Your task to perform on an android device: Open Chrome and go to settings Image 0: 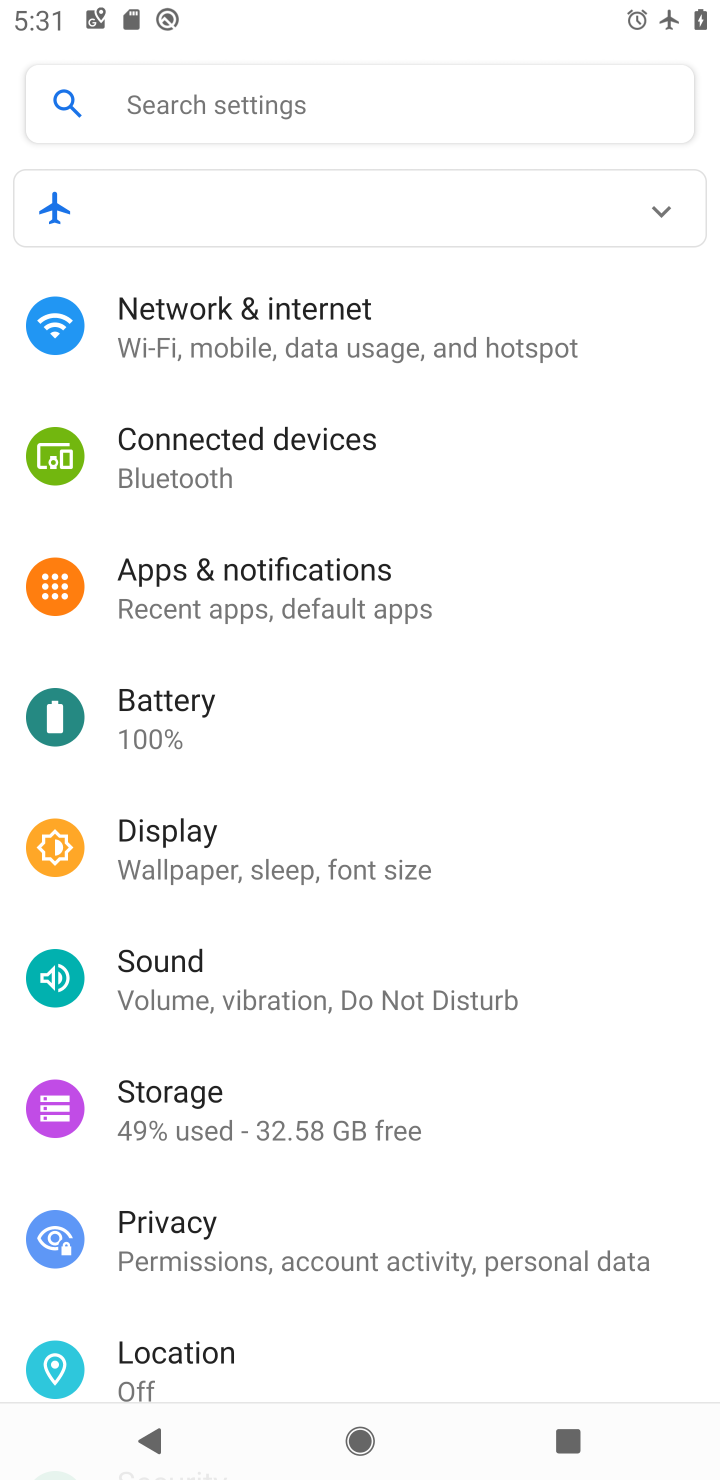
Step 0: press home button
Your task to perform on an android device: Open Chrome and go to settings Image 1: 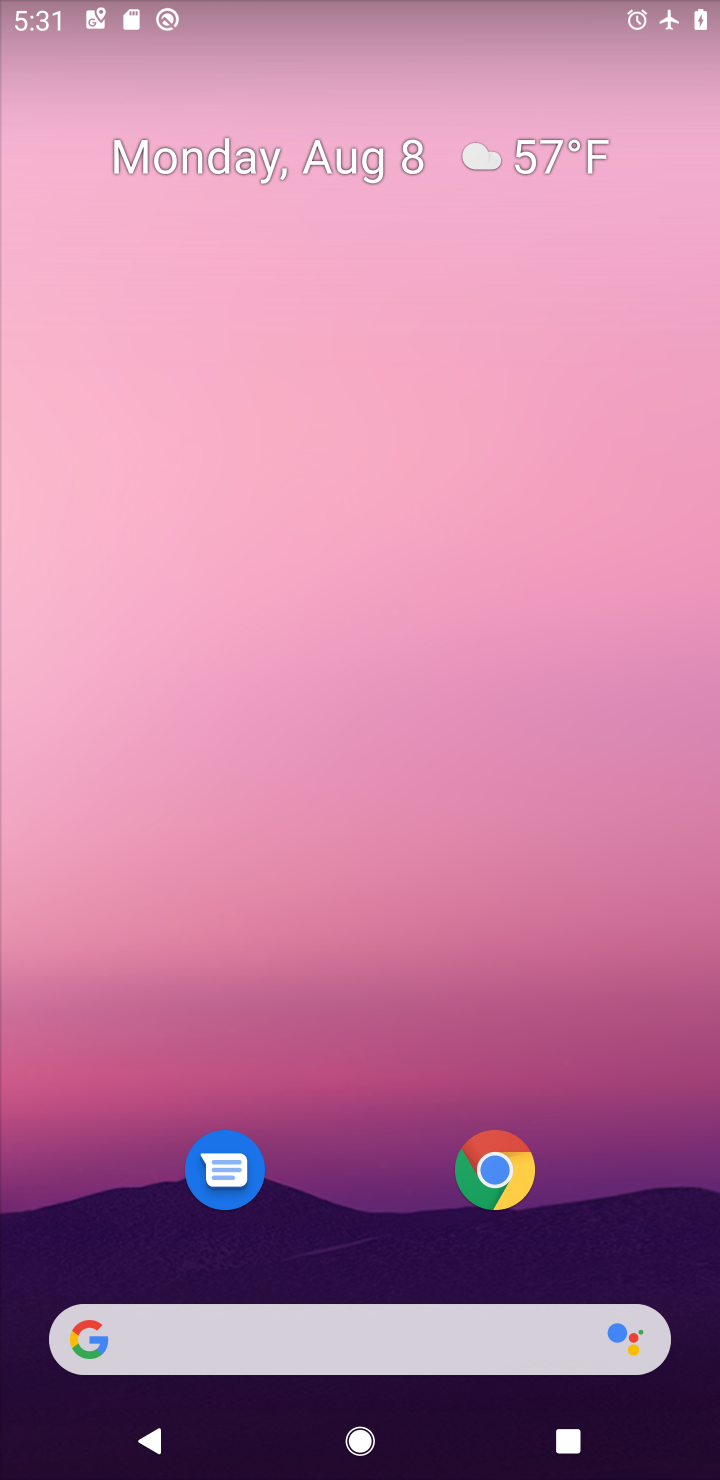
Step 1: click (474, 1157)
Your task to perform on an android device: Open Chrome and go to settings Image 2: 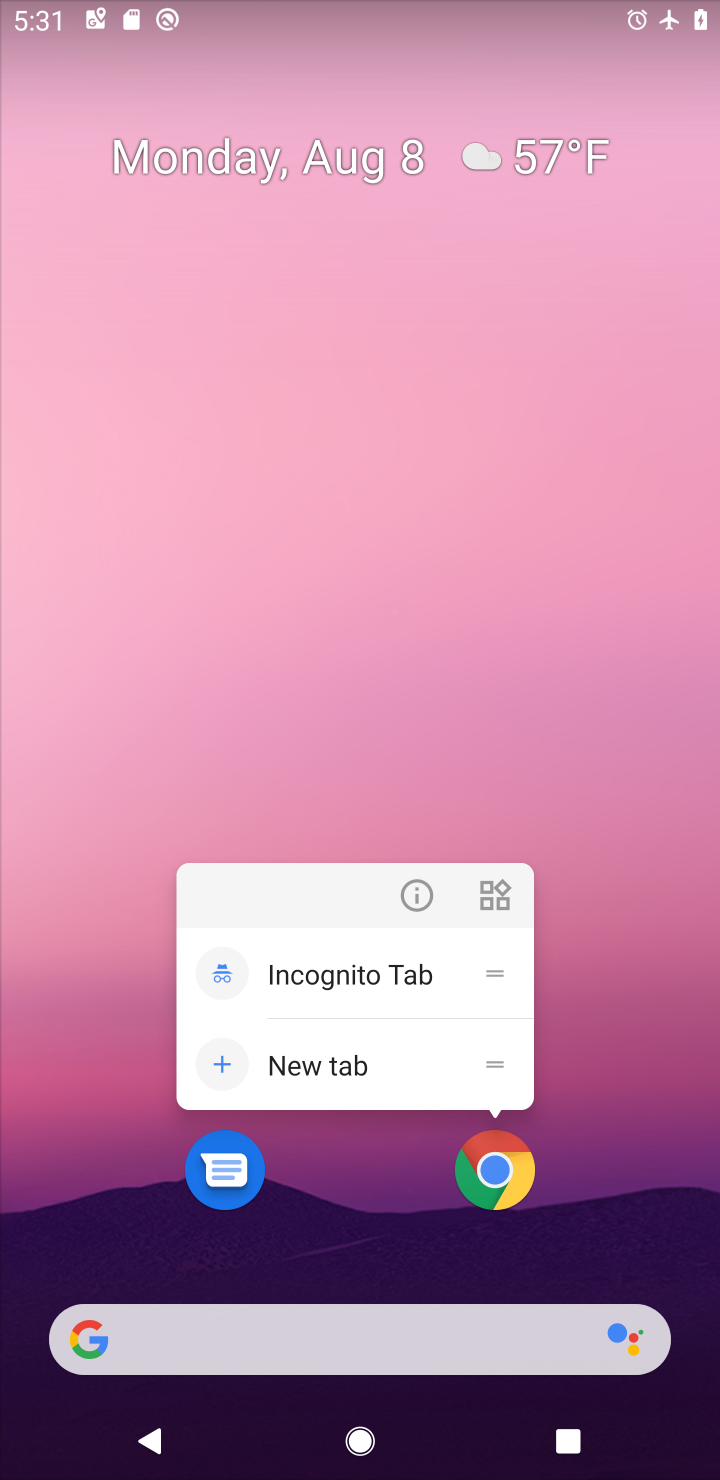
Step 2: click (515, 1187)
Your task to perform on an android device: Open Chrome and go to settings Image 3: 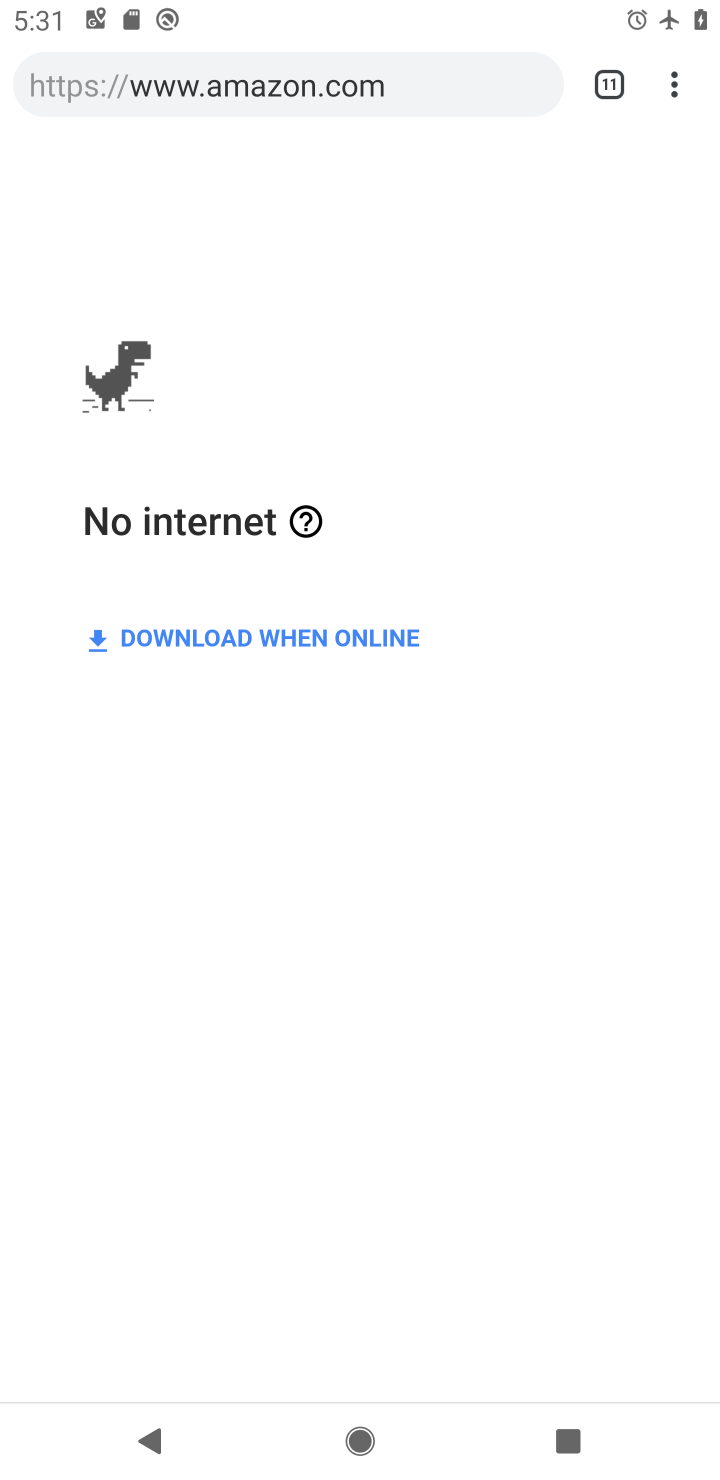
Step 3: click (658, 78)
Your task to perform on an android device: Open Chrome and go to settings Image 4: 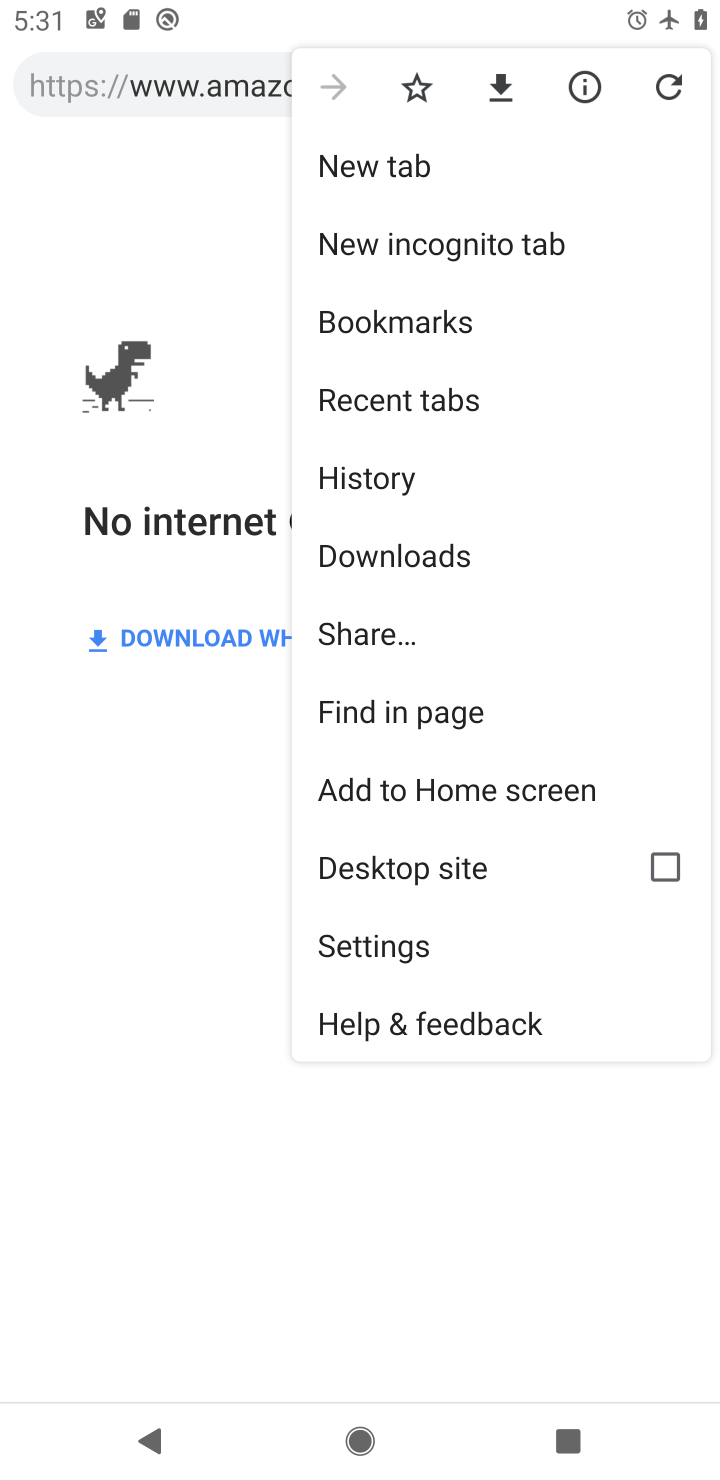
Step 4: click (416, 947)
Your task to perform on an android device: Open Chrome and go to settings Image 5: 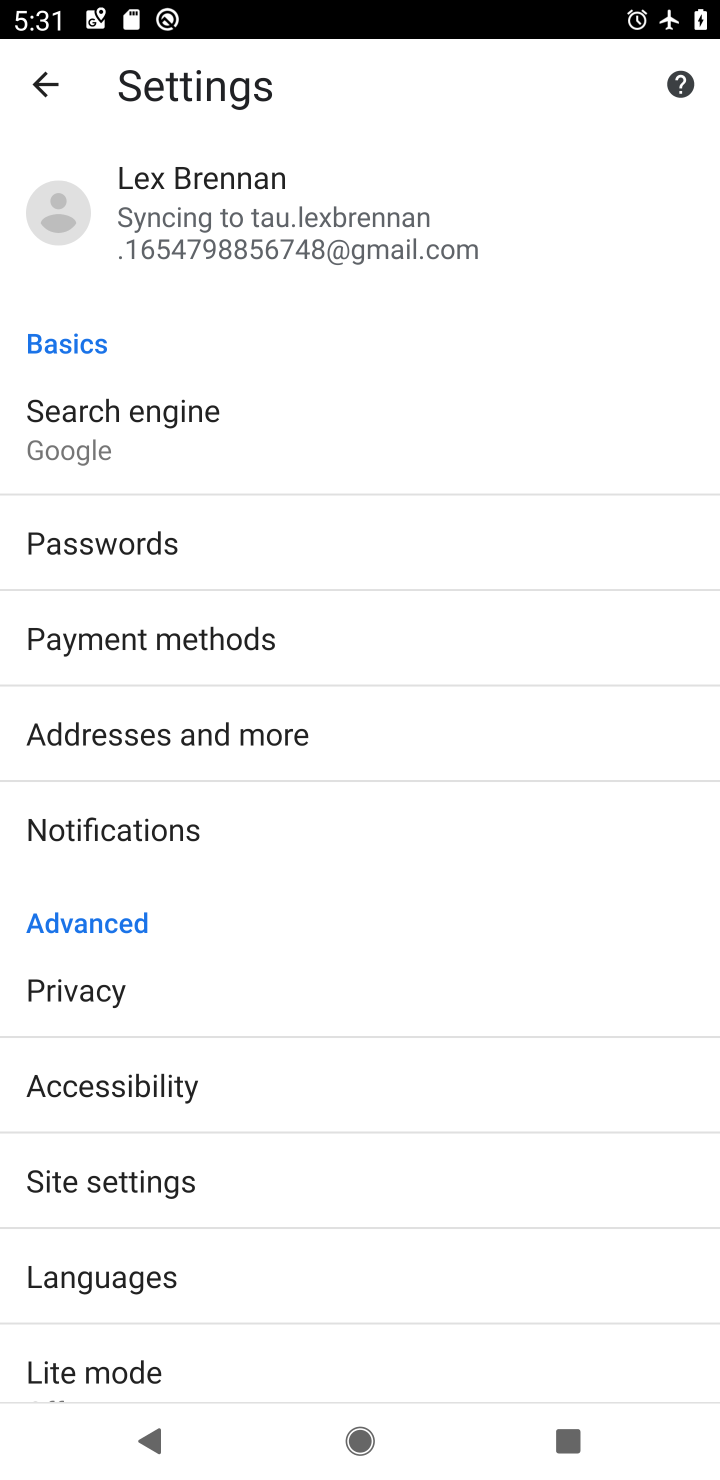
Step 5: task complete